Your task to perform on an android device: Open Google Chrome and click the shortcut for Amazon.com Image 0: 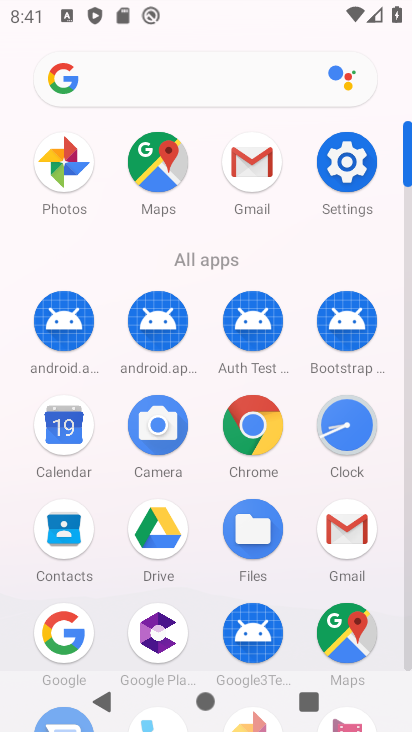
Step 0: press home button
Your task to perform on an android device: Open Google Chrome and click the shortcut for Amazon.com Image 1: 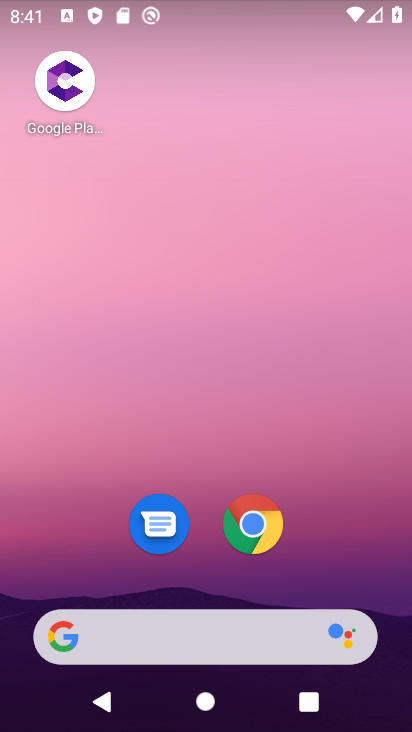
Step 1: click (264, 530)
Your task to perform on an android device: Open Google Chrome and click the shortcut for Amazon.com Image 2: 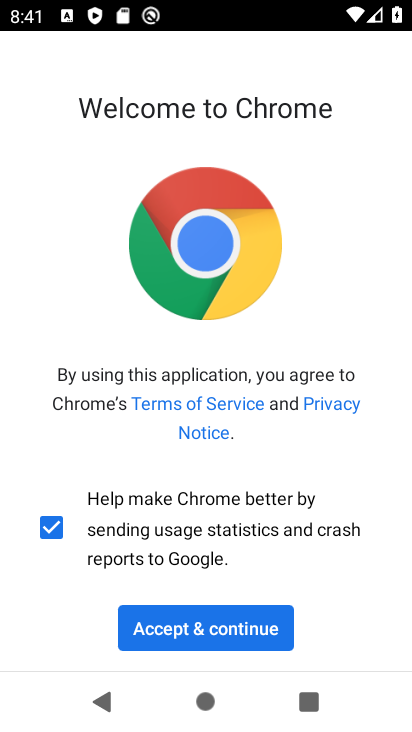
Step 2: click (254, 630)
Your task to perform on an android device: Open Google Chrome and click the shortcut for Amazon.com Image 3: 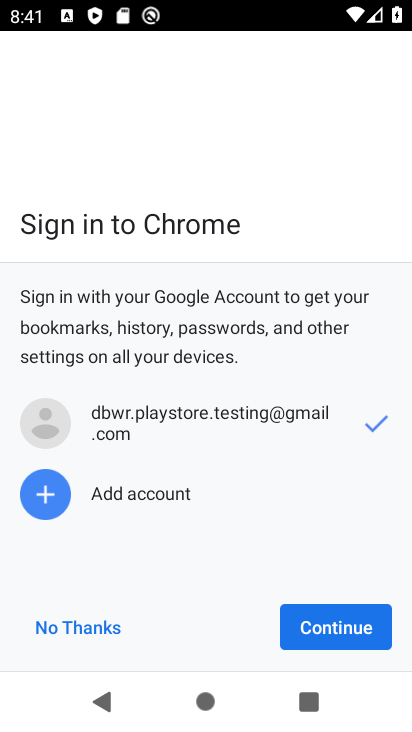
Step 3: click (344, 620)
Your task to perform on an android device: Open Google Chrome and click the shortcut for Amazon.com Image 4: 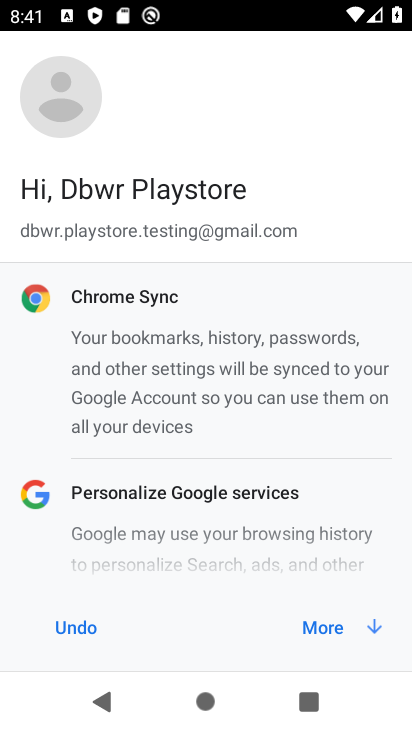
Step 4: click (344, 620)
Your task to perform on an android device: Open Google Chrome and click the shortcut for Amazon.com Image 5: 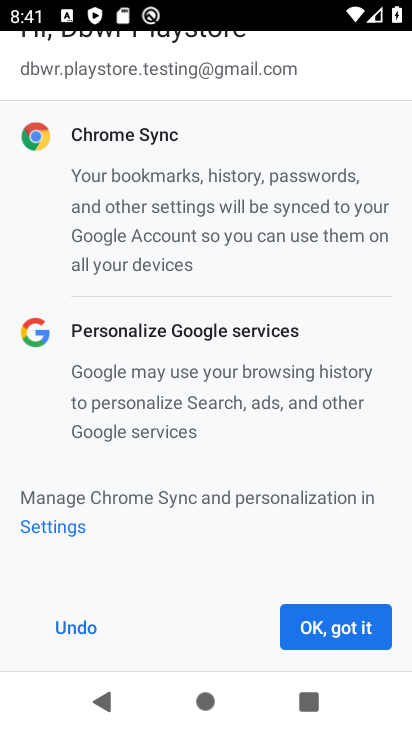
Step 5: click (344, 620)
Your task to perform on an android device: Open Google Chrome and click the shortcut for Amazon.com Image 6: 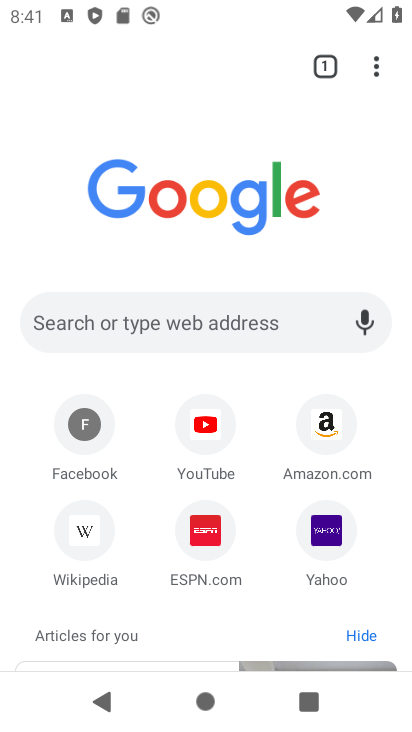
Step 6: click (330, 418)
Your task to perform on an android device: Open Google Chrome and click the shortcut for Amazon.com Image 7: 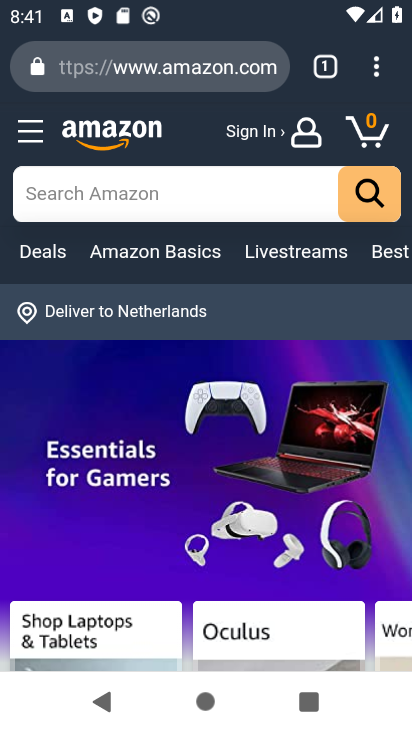
Step 7: task complete